Your task to perform on an android device: Open network settings Image 0: 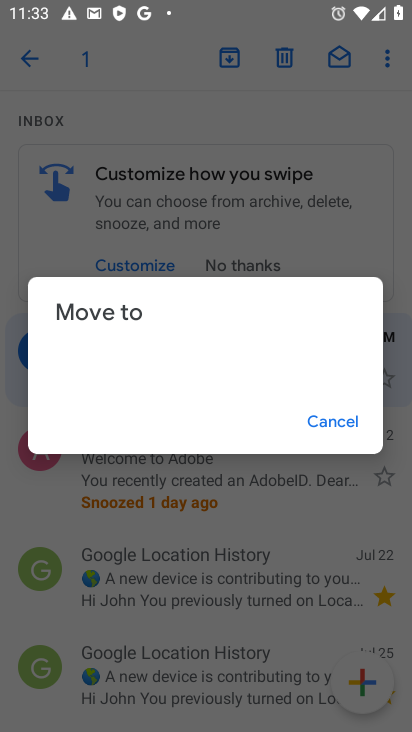
Step 0: press home button
Your task to perform on an android device: Open network settings Image 1: 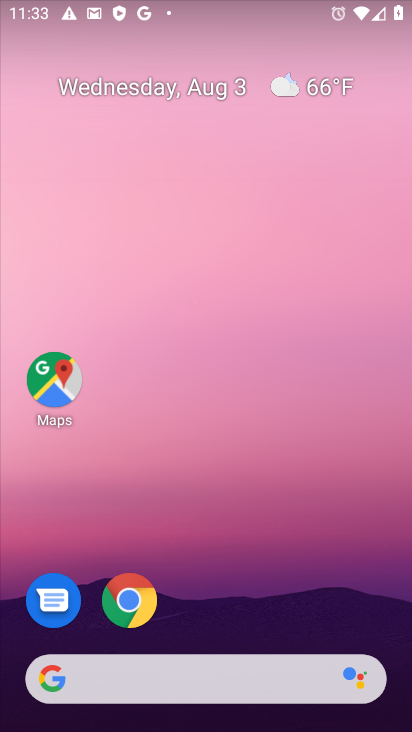
Step 1: drag from (200, 640) to (400, 486)
Your task to perform on an android device: Open network settings Image 2: 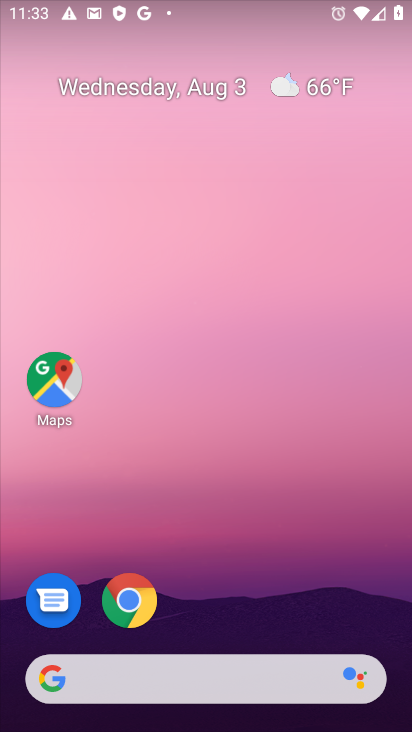
Step 2: click (220, 643)
Your task to perform on an android device: Open network settings Image 3: 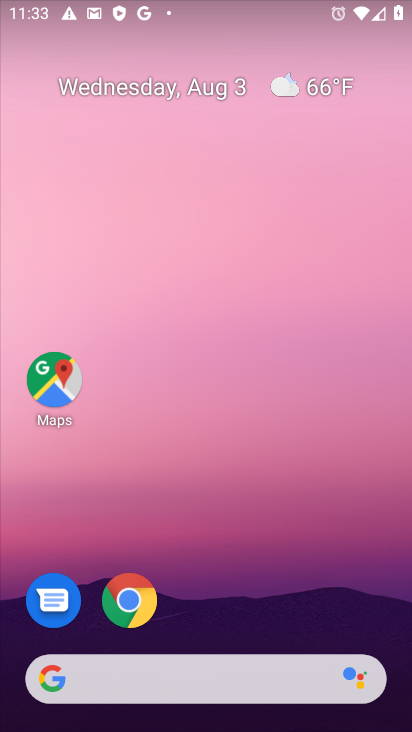
Step 3: drag from (220, 644) to (308, 22)
Your task to perform on an android device: Open network settings Image 4: 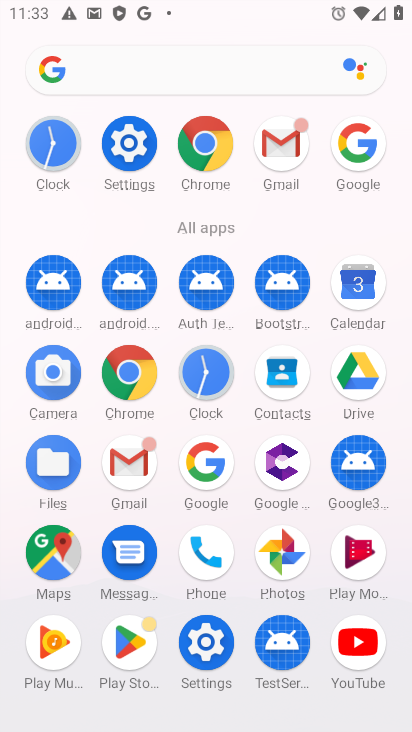
Step 4: click (206, 631)
Your task to perform on an android device: Open network settings Image 5: 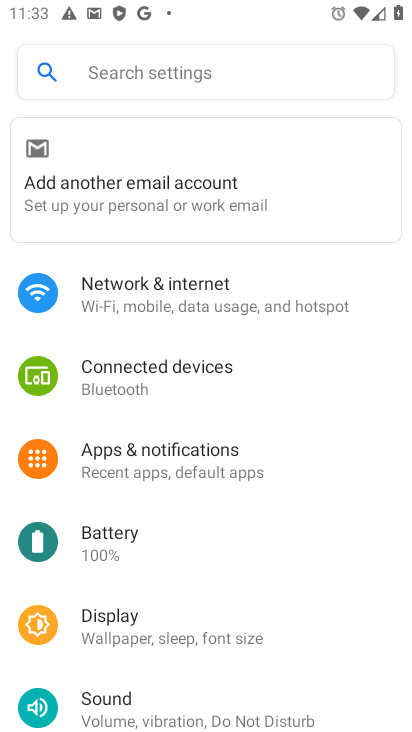
Step 5: click (144, 293)
Your task to perform on an android device: Open network settings Image 6: 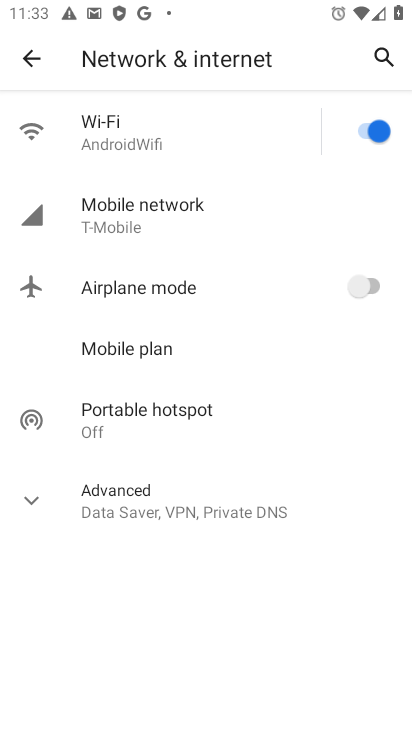
Step 6: click (158, 196)
Your task to perform on an android device: Open network settings Image 7: 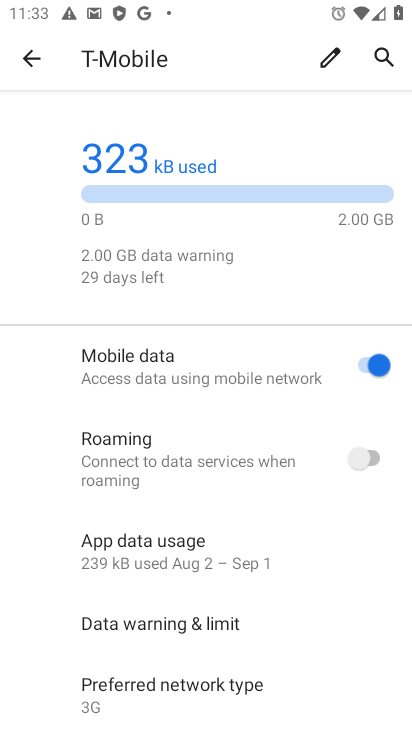
Step 7: task complete